Your task to perform on an android device: When is my next appointment? Image 0: 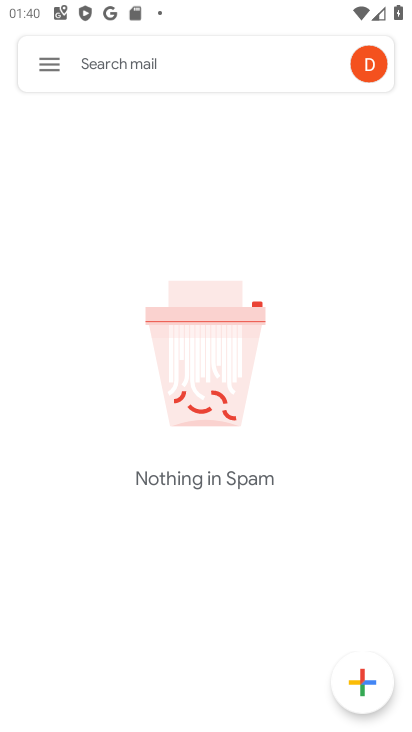
Step 0: drag from (233, 389) to (260, 200)
Your task to perform on an android device: When is my next appointment? Image 1: 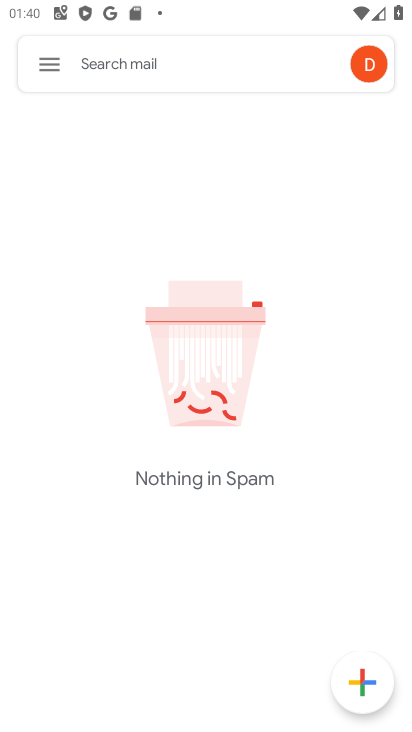
Step 1: press home button
Your task to perform on an android device: When is my next appointment? Image 2: 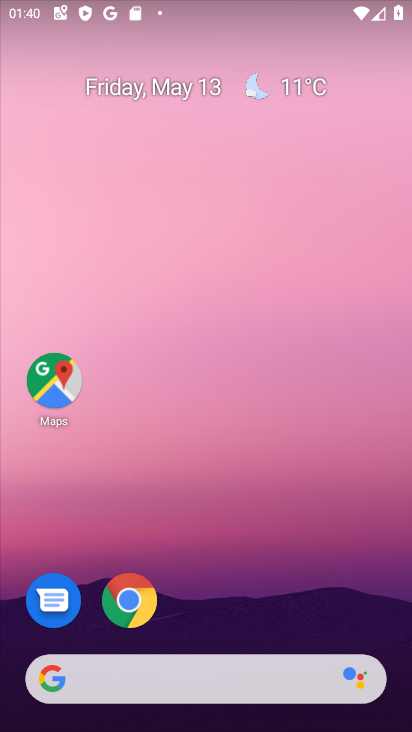
Step 2: drag from (195, 627) to (251, 27)
Your task to perform on an android device: When is my next appointment? Image 3: 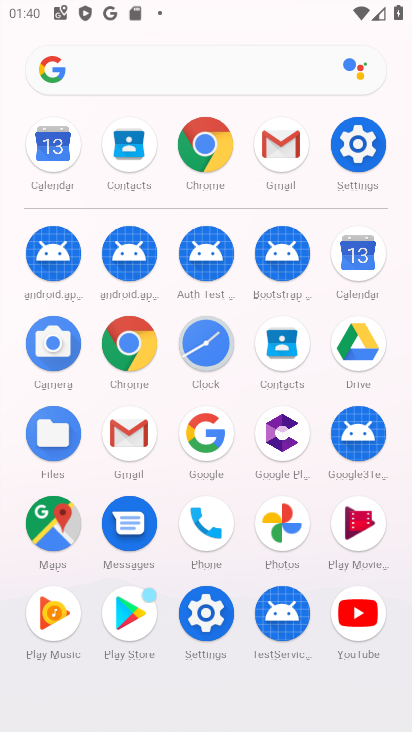
Step 3: click (359, 262)
Your task to perform on an android device: When is my next appointment? Image 4: 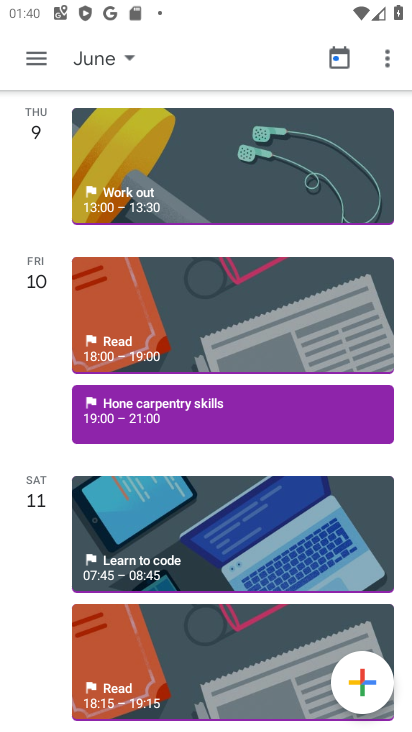
Step 4: click (110, 70)
Your task to perform on an android device: When is my next appointment? Image 5: 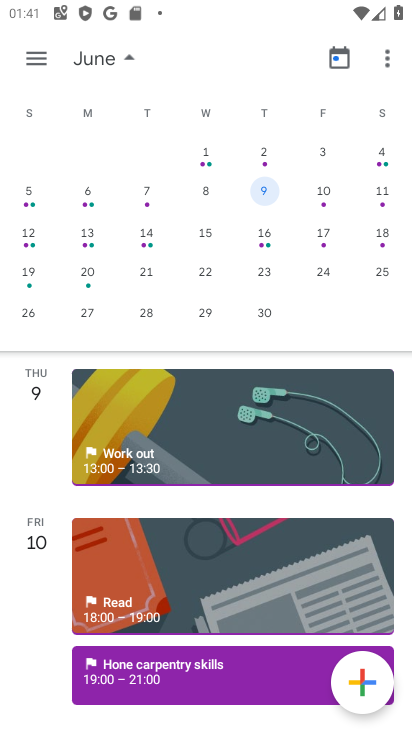
Step 5: drag from (75, 190) to (407, 154)
Your task to perform on an android device: When is my next appointment? Image 6: 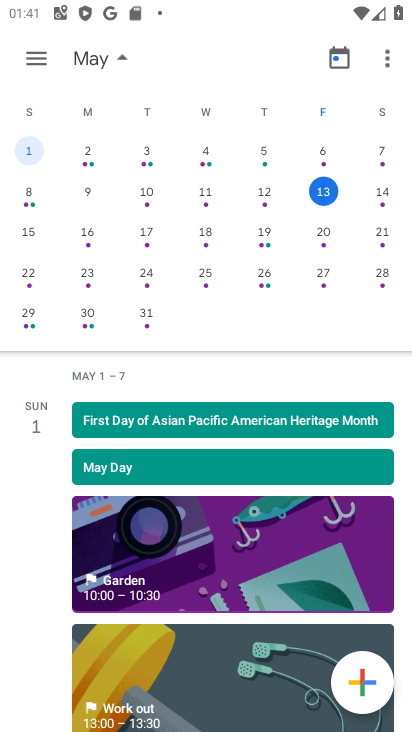
Step 6: click (318, 198)
Your task to perform on an android device: When is my next appointment? Image 7: 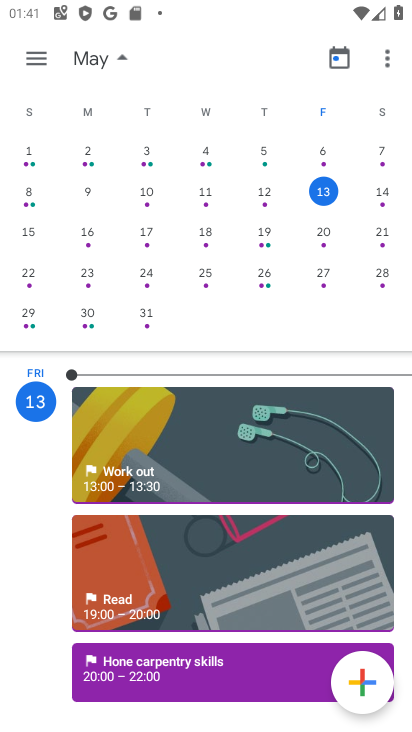
Step 7: task complete